Your task to perform on an android device: empty trash in the gmail app Image 0: 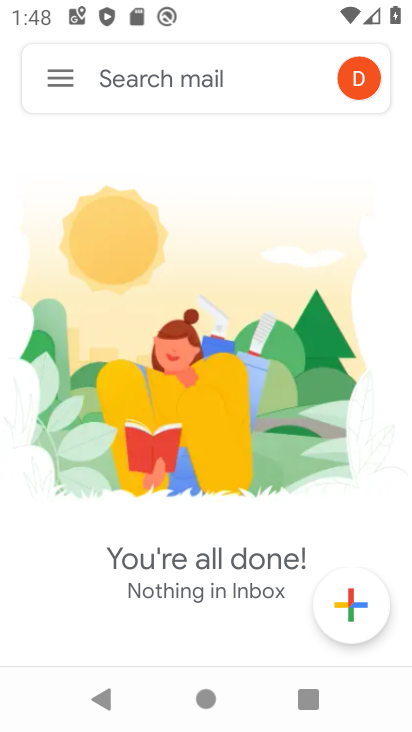
Step 0: press home button
Your task to perform on an android device: empty trash in the gmail app Image 1: 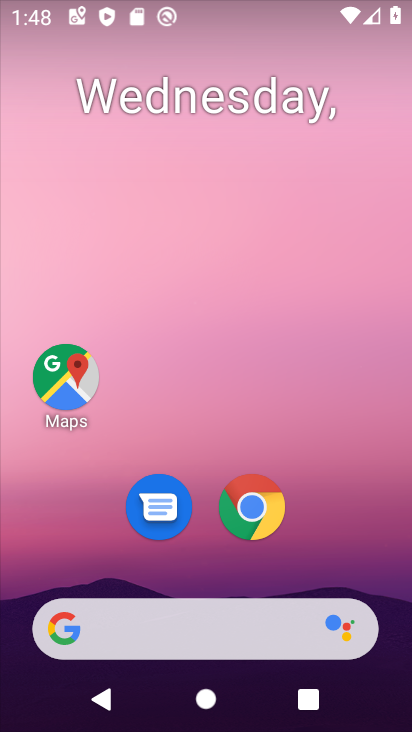
Step 1: drag from (369, 515) to (353, 211)
Your task to perform on an android device: empty trash in the gmail app Image 2: 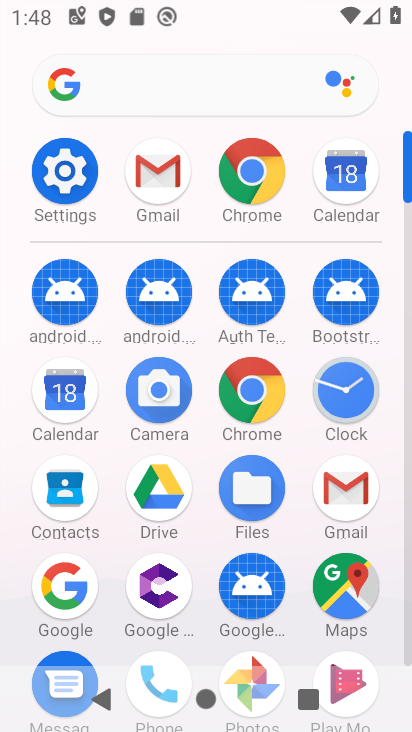
Step 2: click (357, 505)
Your task to perform on an android device: empty trash in the gmail app Image 3: 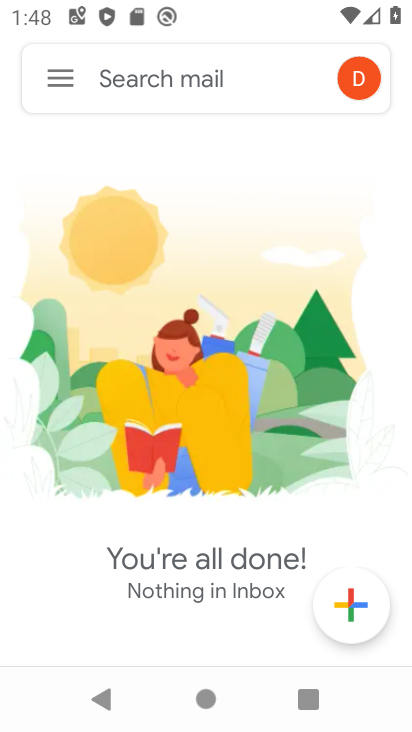
Step 3: click (57, 78)
Your task to perform on an android device: empty trash in the gmail app Image 4: 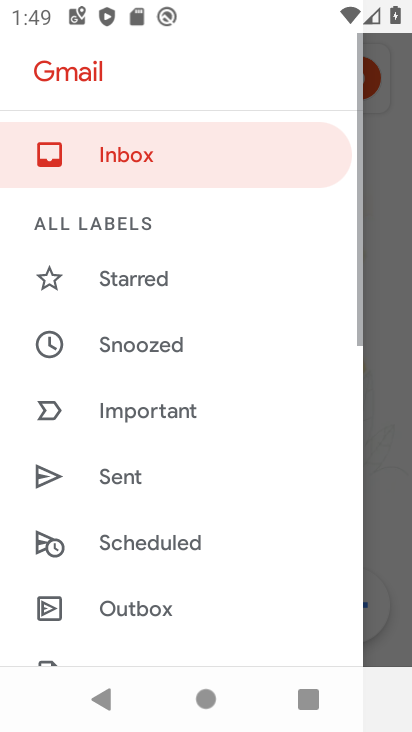
Step 4: drag from (173, 574) to (209, 272)
Your task to perform on an android device: empty trash in the gmail app Image 5: 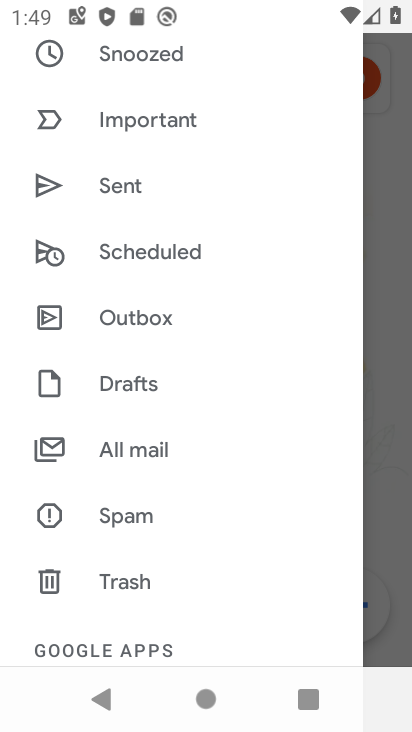
Step 5: click (159, 569)
Your task to perform on an android device: empty trash in the gmail app Image 6: 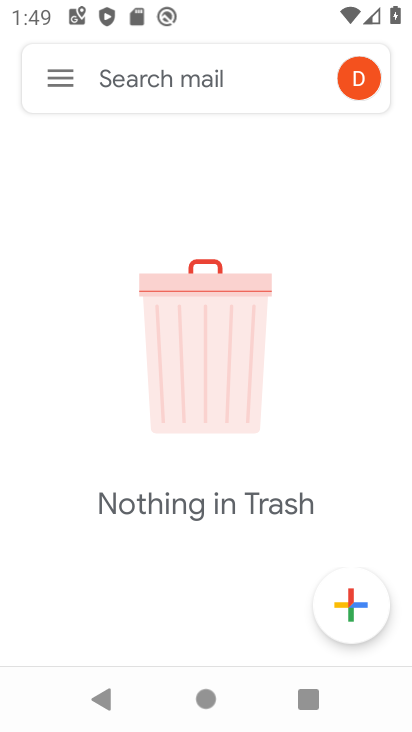
Step 6: task complete